Your task to perform on an android device: turn vacation reply on in the gmail app Image 0: 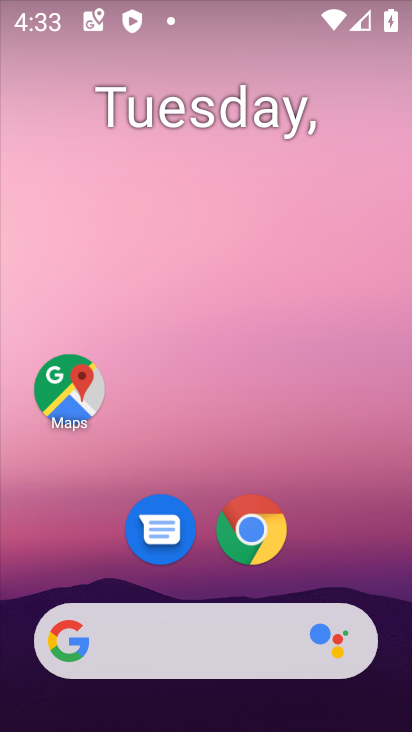
Step 0: drag from (357, 541) to (287, 28)
Your task to perform on an android device: turn vacation reply on in the gmail app Image 1: 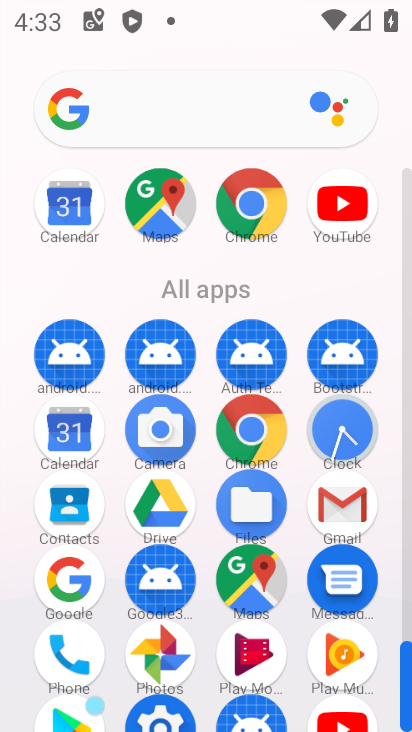
Step 1: drag from (24, 540) to (2, 167)
Your task to perform on an android device: turn vacation reply on in the gmail app Image 2: 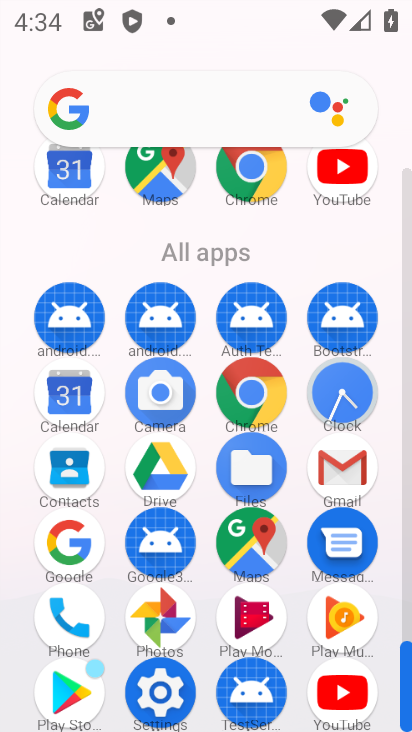
Step 2: click (345, 459)
Your task to perform on an android device: turn vacation reply on in the gmail app Image 3: 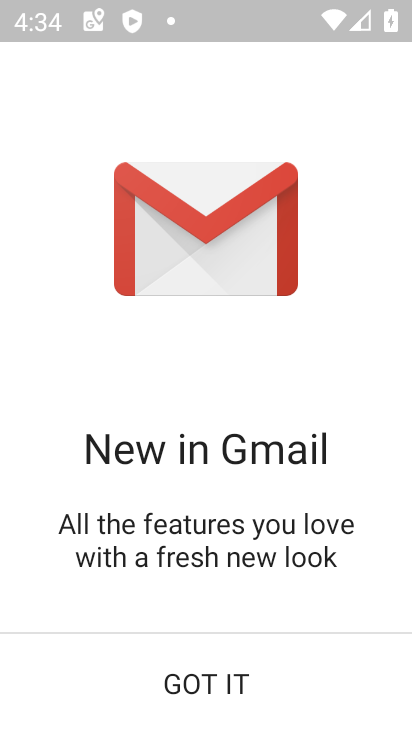
Step 3: click (219, 688)
Your task to perform on an android device: turn vacation reply on in the gmail app Image 4: 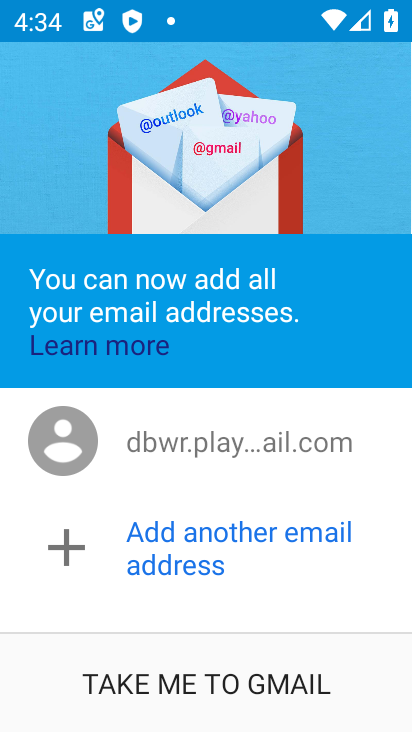
Step 4: click (213, 663)
Your task to perform on an android device: turn vacation reply on in the gmail app Image 5: 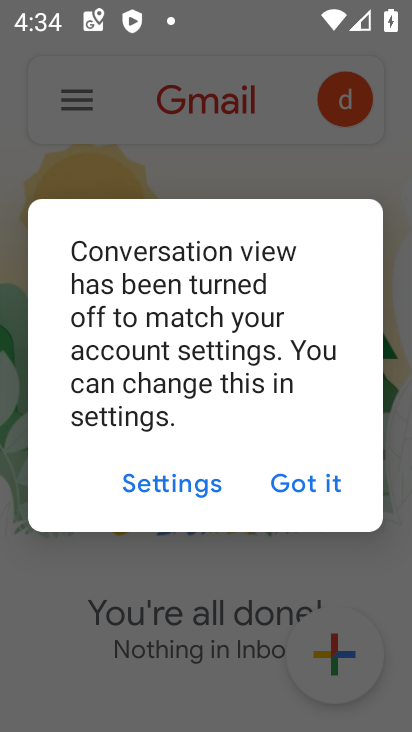
Step 5: click (312, 490)
Your task to perform on an android device: turn vacation reply on in the gmail app Image 6: 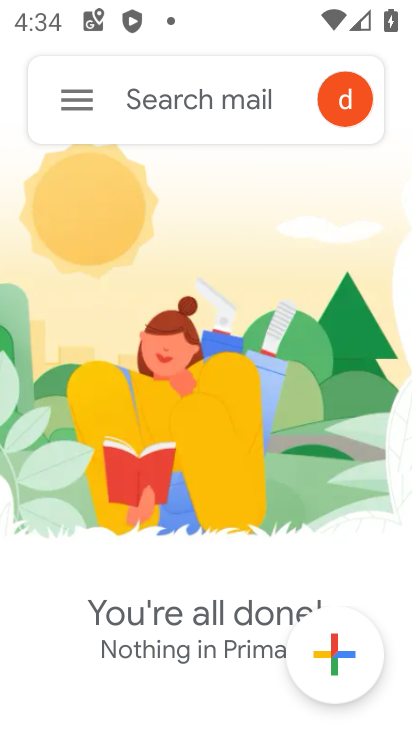
Step 6: click (62, 89)
Your task to perform on an android device: turn vacation reply on in the gmail app Image 7: 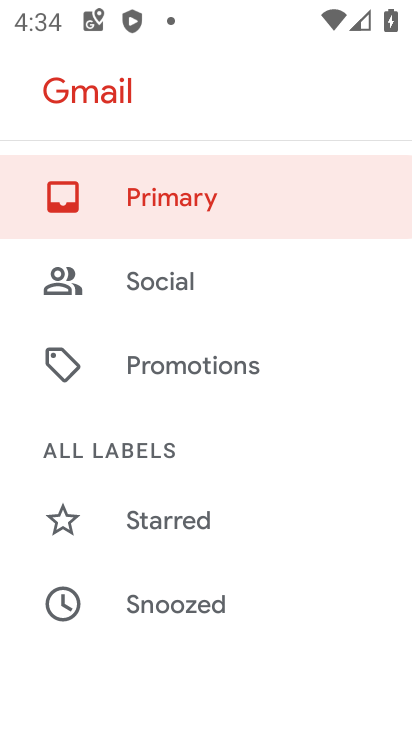
Step 7: drag from (244, 602) to (263, 188)
Your task to perform on an android device: turn vacation reply on in the gmail app Image 8: 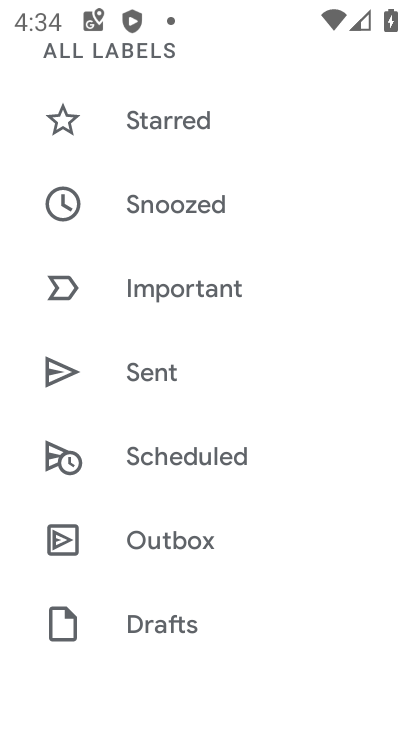
Step 8: drag from (244, 627) to (230, 165)
Your task to perform on an android device: turn vacation reply on in the gmail app Image 9: 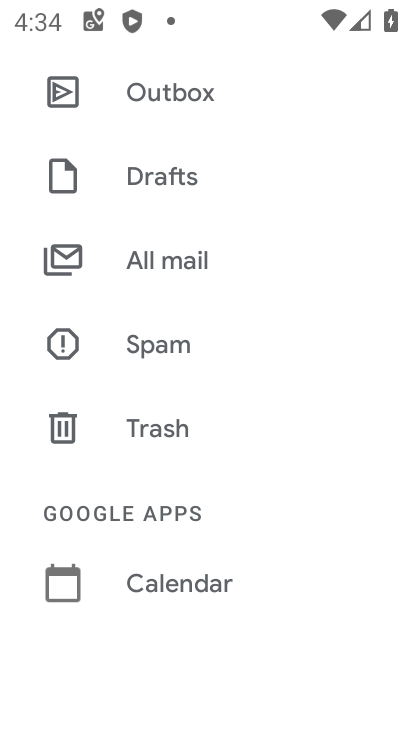
Step 9: drag from (206, 586) to (226, 156)
Your task to perform on an android device: turn vacation reply on in the gmail app Image 10: 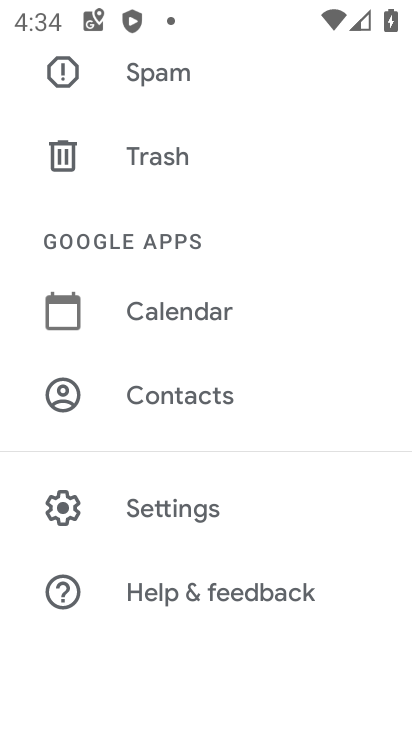
Step 10: click (187, 511)
Your task to perform on an android device: turn vacation reply on in the gmail app Image 11: 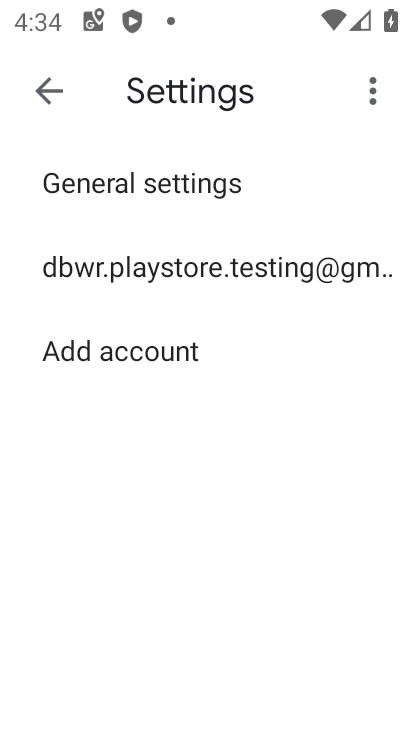
Step 11: click (206, 273)
Your task to perform on an android device: turn vacation reply on in the gmail app Image 12: 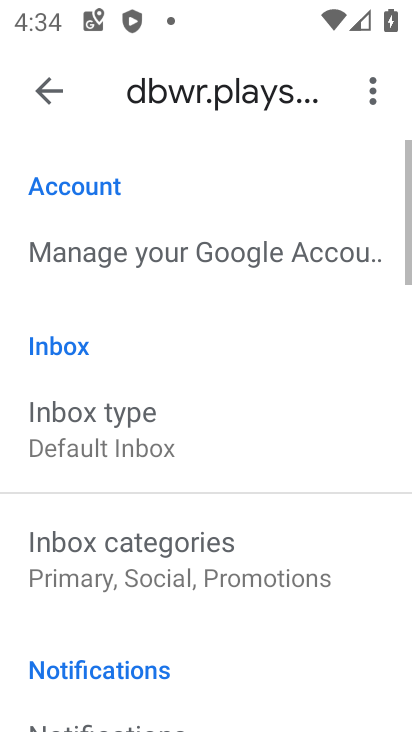
Step 12: drag from (232, 647) to (238, 216)
Your task to perform on an android device: turn vacation reply on in the gmail app Image 13: 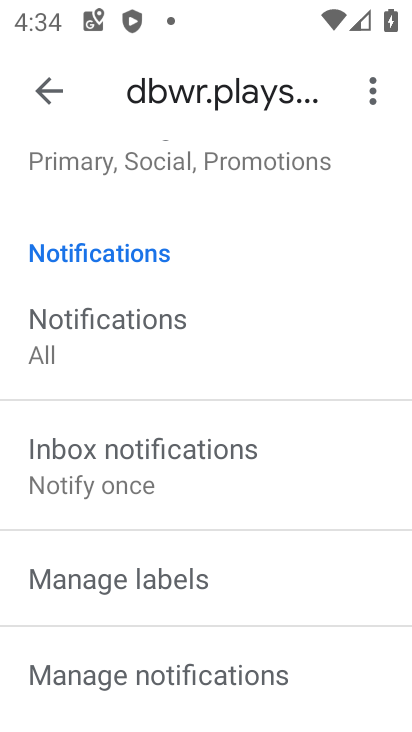
Step 13: drag from (248, 597) to (254, 206)
Your task to perform on an android device: turn vacation reply on in the gmail app Image 14: 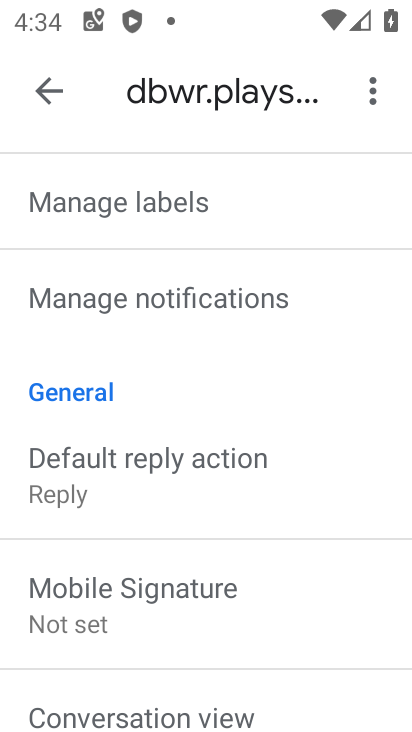
Step 14: drag from (261, 582) to (272, 217)
Your task to perform on an android device: turn vacation reply on in the gmail app Image 15: 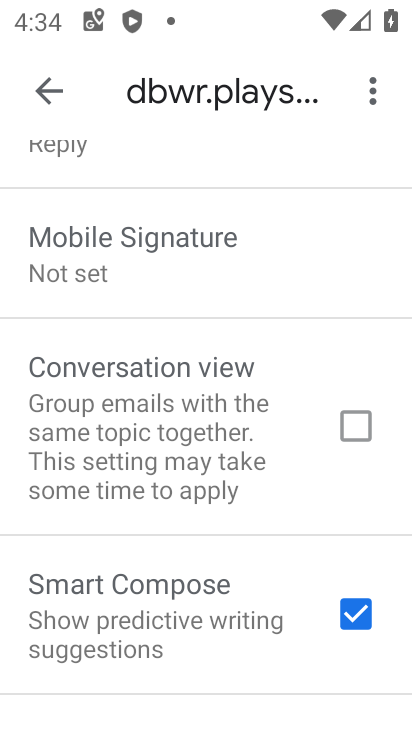
Step 15: drag from (247, 622) to (247, 215)
Your task to perform on an android device: turn vacation reply on in the gmail app Image 16: 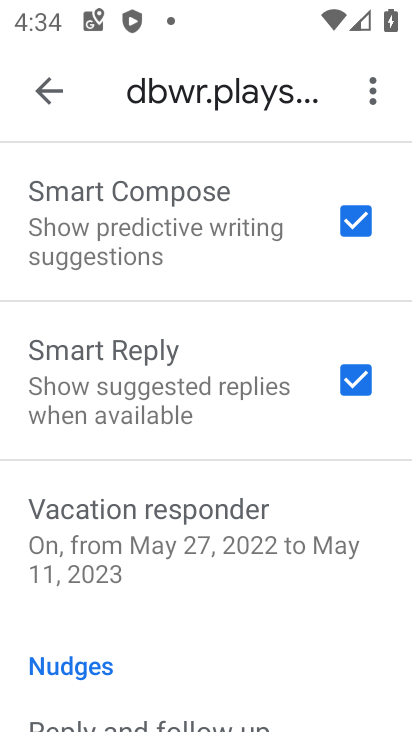
Step 16: click (212, 541)
Your task to perform on an android device: turn vacation reply on in the gmail app Image 17: 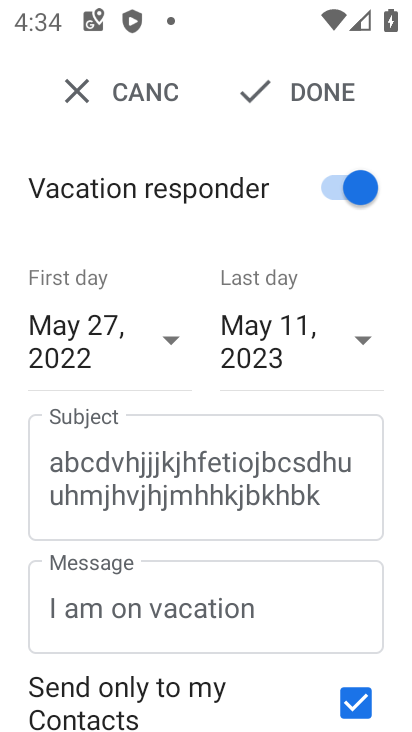
Step 17: click (304, 83)
Your task to perform on an android device: turn vacation reply on in the gmail app Image 18: 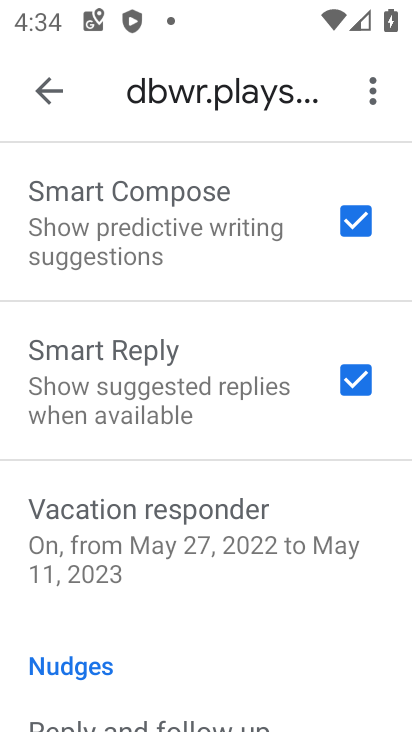
Step 18: task complete